Your task to perform on an android device: open chrome privacy settings Image 0: 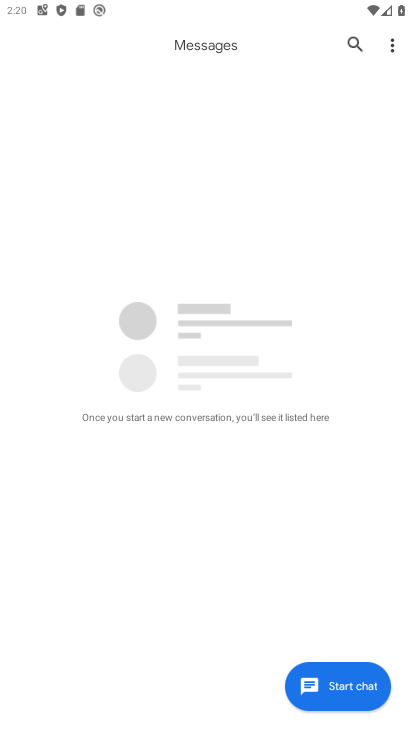
Step 0: press back button
Your task to perform on an android device: open chrome privacy settings Image 1: 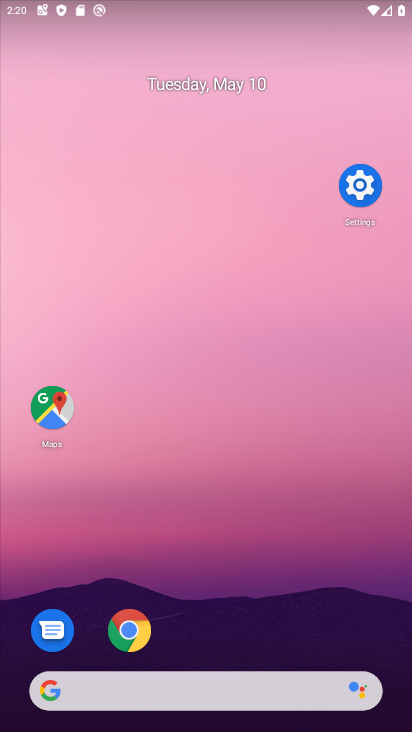
Step 1: drag from (268, 690) to (155, 99)
Your task to perform on an android device: open chrome privacy settings Image 2: 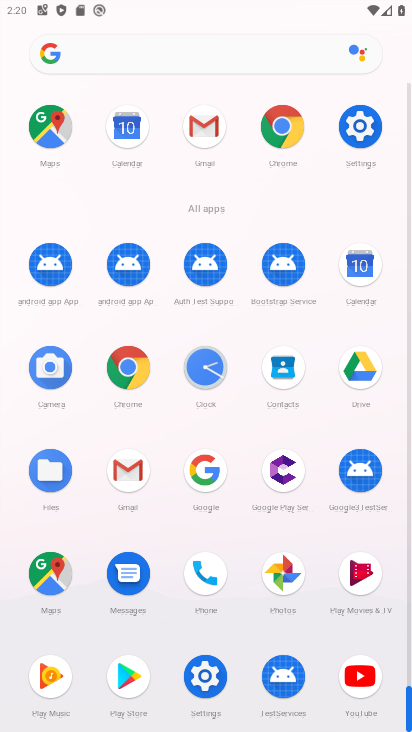
Step 2: click (355, 120)
Your task to perform on an android device: open chrome privacy settings Image 3: 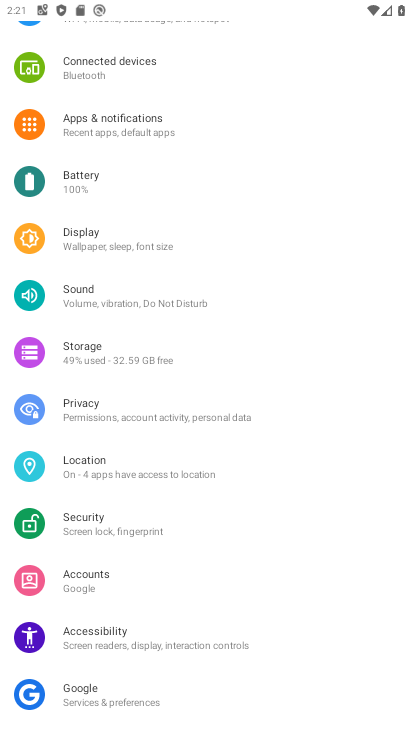
Step 3: click (62, 405)
Your task to perform on an android device: open chrome privacy settings Image 4: 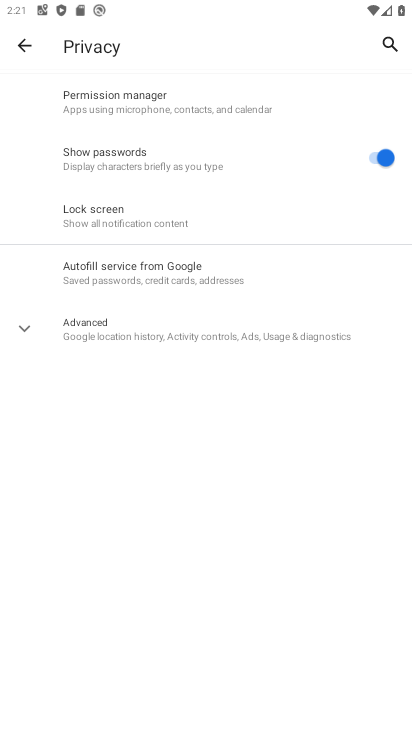
Step 4: task complete